Your task to perform on an android device: Open Google Chrome Image 0: 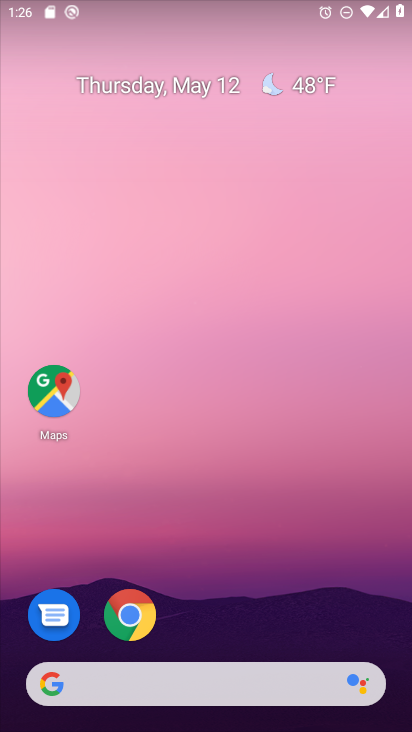
Step 0: drag from (250, 670) to (292, 0)
Your task to perform on an android device: Open Google Chrome Image 1: 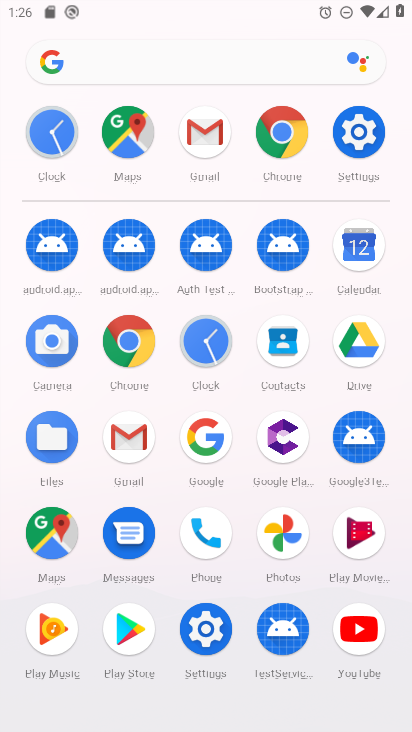
Step 1: click (127, 345)
Your task to perform on an android device: Open Google Chrome Image 2: 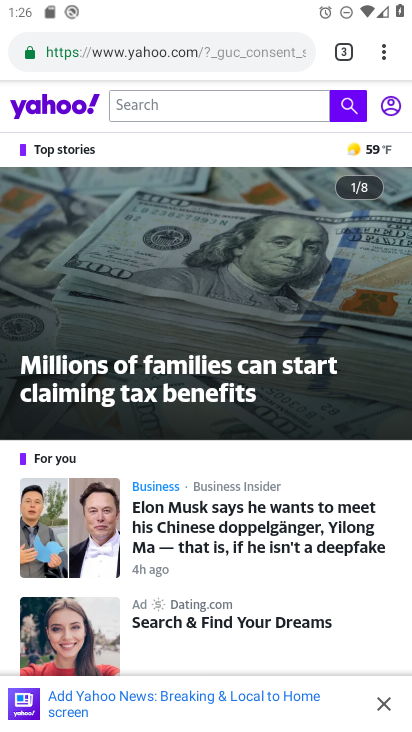
Step 2: task complete